Your task to perform on an android device: open a bookmark in the chrome app Image 0: 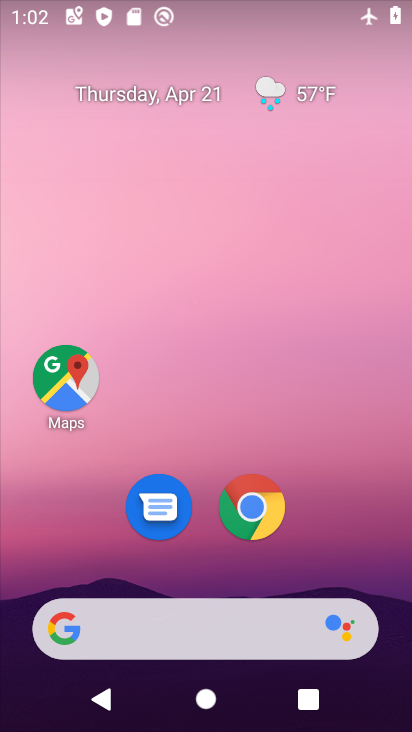
Step 0: click (253, 508)
Your task to perform on an android device: open a bookmark in the chrome app Image 1: 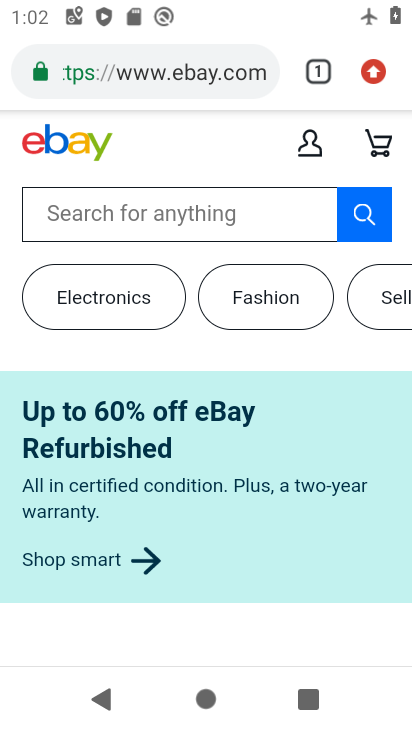
Step 1: click (375, 78)
Your task to perform on an android device: open a bookmark in the chrome app Image 2: 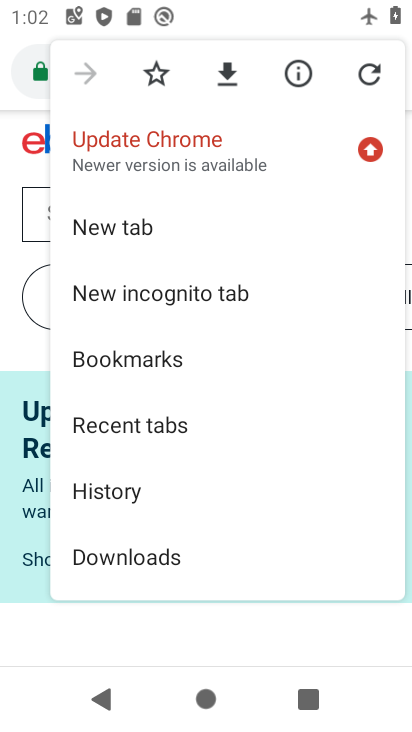
Step 2: click (125, 362)
Your task to perform on an android device: open a bookmark in the chrome app Image 3: 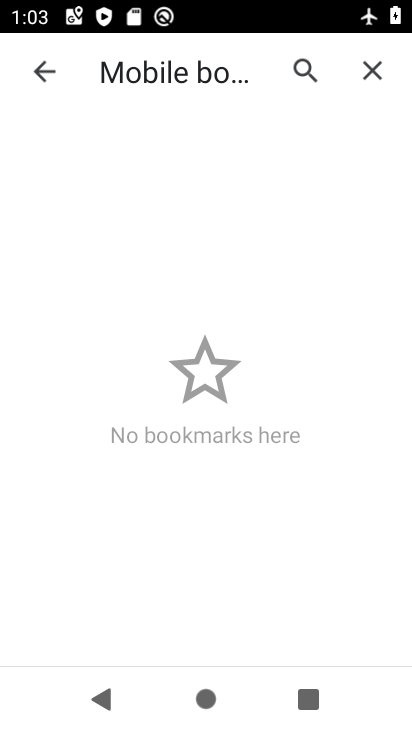
Step 3: task complete